Your task to perform on an android device: Open the phone app and click the voicemail tab. Image 0: 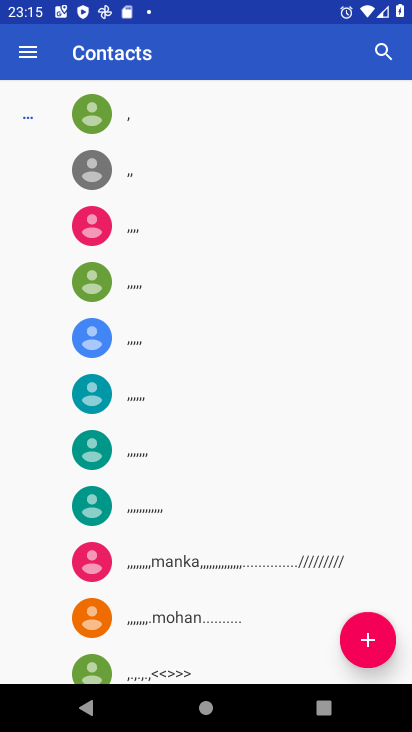
Step 0: press home button
Your task to perform on an android device: Open the phone app and click the voicemail tab. Image 1: 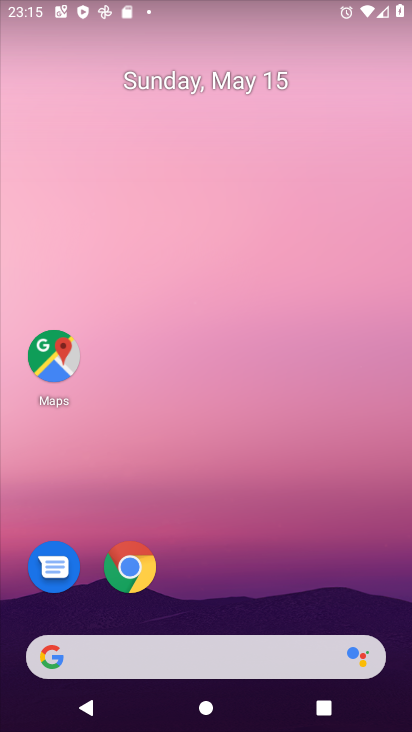
Step 1: drag from (252, 500) to (285, 374)
Your task to perform on an android device: Open the phone app and click the voicemail tab. Image 2: 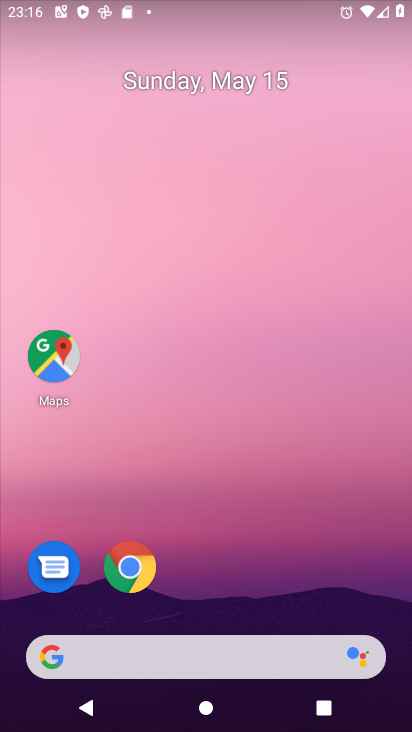
Step 2: drag from (253, 726) to (299, 100)
Your task to perform on an android device: Open the phone app and click the voicemail tab. Image 3: 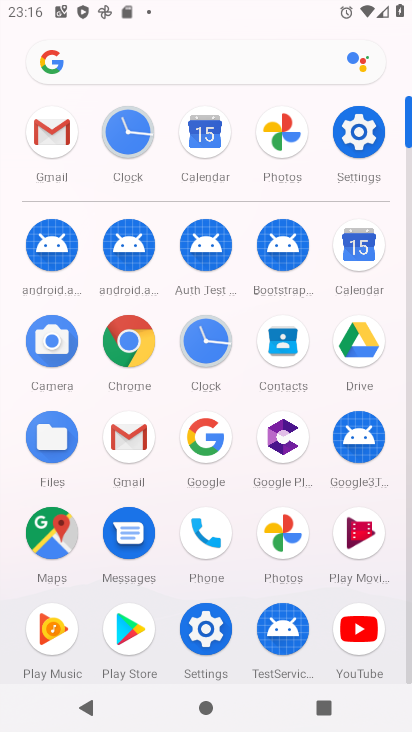
Step 3: click (190, 536)
Your task to perform on an android device: Open the phone app and click the voicemail tab. Image 4: 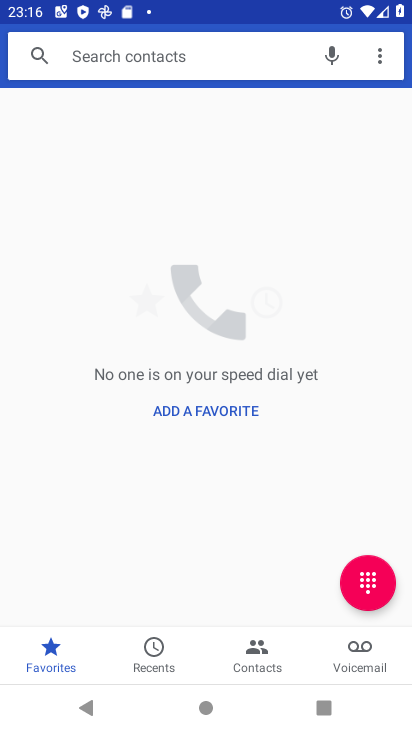
Step 4: click (359, 653)
Your task to perform on an android device: Open the phone app and click the voicemail tab. Image 5: 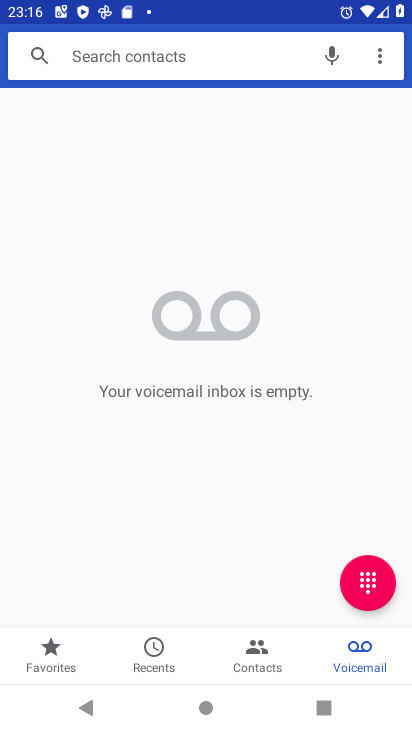
Step 5: task complete